Your task to perform on an android device: open app "Etsy: Buy & Sell Unique Items" Image 0: 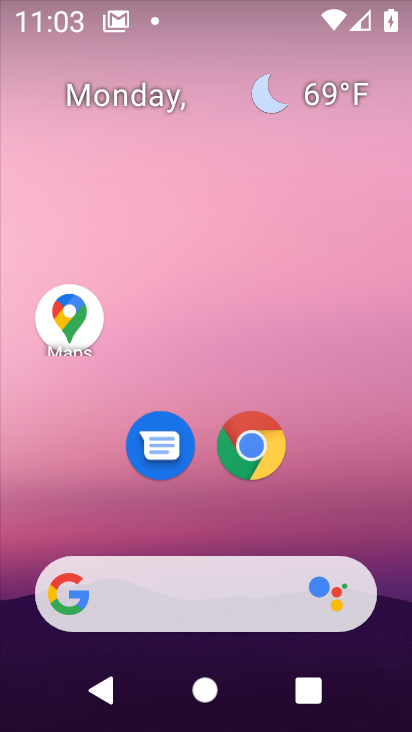
Step 0: drag from (275, 615) to (298, 13)
Your task to perform on an android device: open app "Etsy: Buy & Sell Unique Items" Image 1: 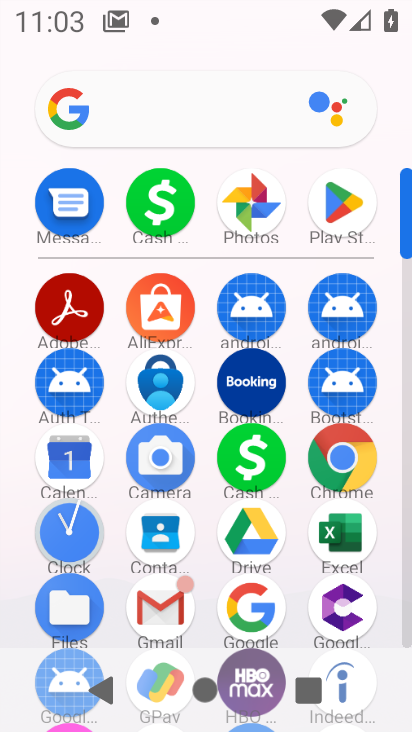
Step 1: drag from (198, 475) to (210, 118)
Your task to perform on an android device: open app "Etsy: Buy & Sell Unique Items" Image 2: 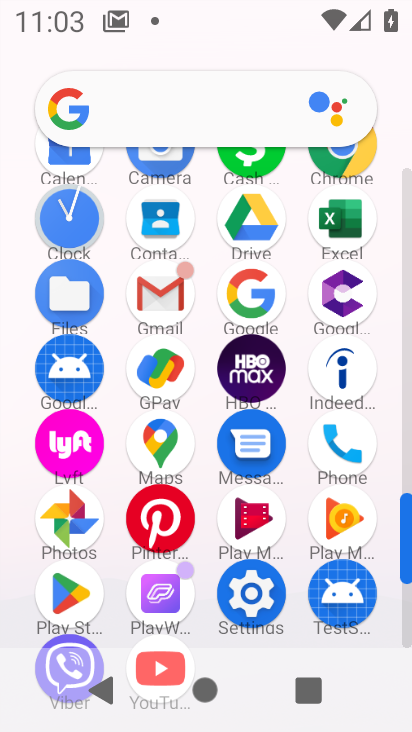
Step 2: click (69, 584)
Your task to perform on an android device: open app "Etsy: Buy & Sell Unique Items" Image 3: 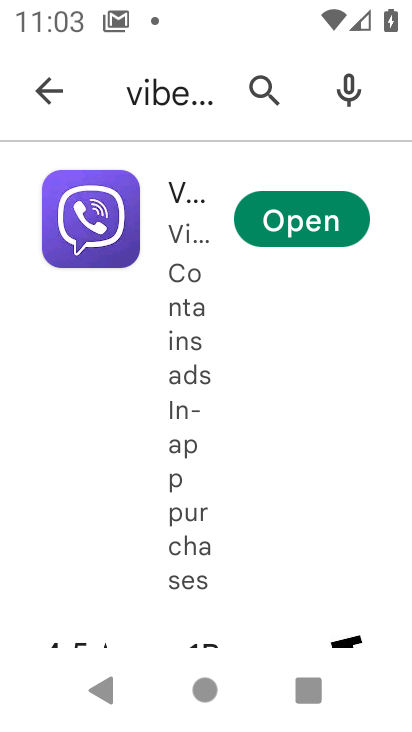
Step 3: click (42, 82)
Your task to perform on an android device: open app "Etsy: Buy & Sell Unique Items" Image 4: 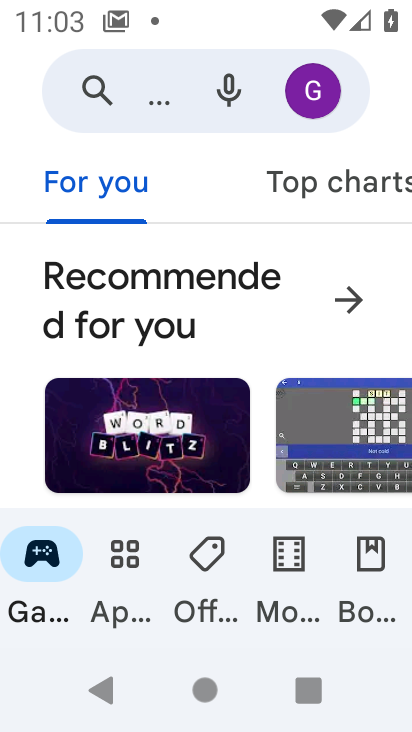
Step 4: click (111, 109)
Your task to perform on an android device: open app "Etsy: Buy & Sell Unique Items" Image 5: 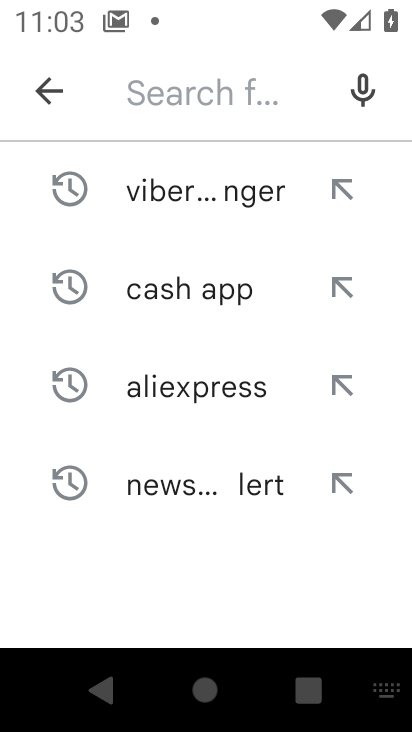
Step 5: type "Etsy: Buy & Sell Unique Items"
Your task to perform on an android device: open app "Etsy: Buy & Sell Unique Items" Image 6: 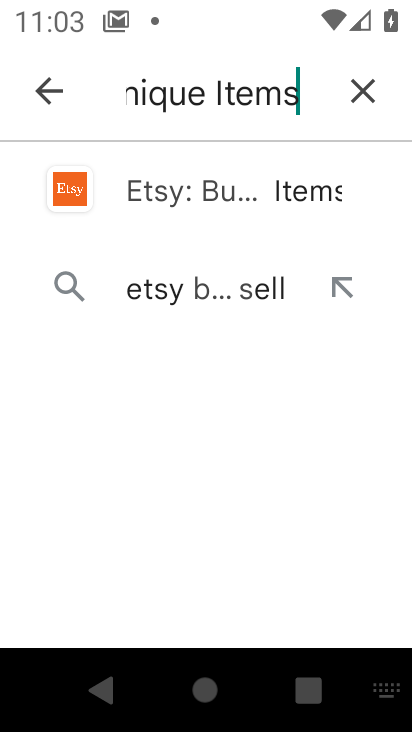
Step 6: type ""
Your task to perform on an android device: open app "Etsy: Buy & Sell Unique Items" Image 7: 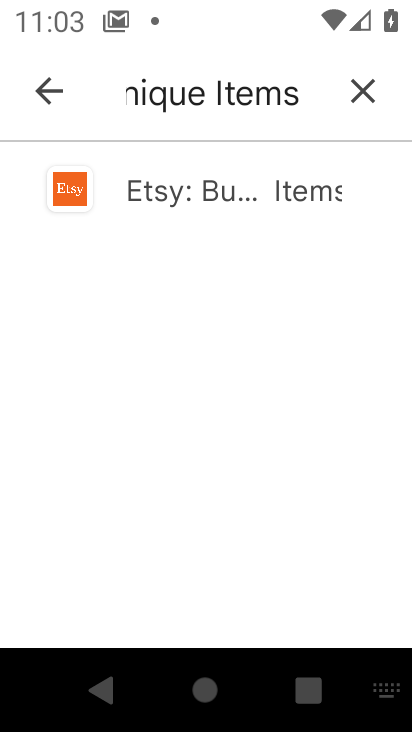
Step 7: click (218, 176)
Your task to perform on an android device: open app "Etsy: Buy & Sell Unique Items" Image 8: 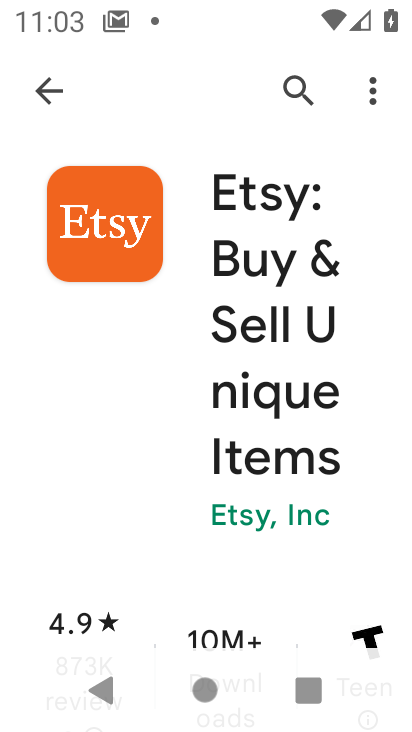
Step 8: task complete